Your task to perform on an android device: turn off smart reply in the gmail app Image 0: 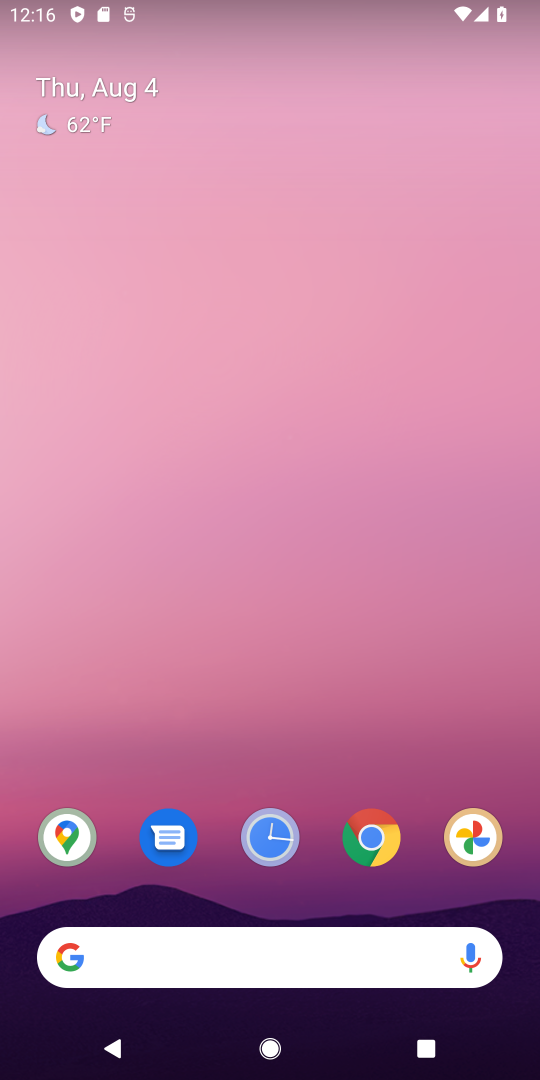
Step 0: drag from (235, 776) to (341, 16)
Your task to perform on an android device: turn off smart reply in the gmail app Image 1: 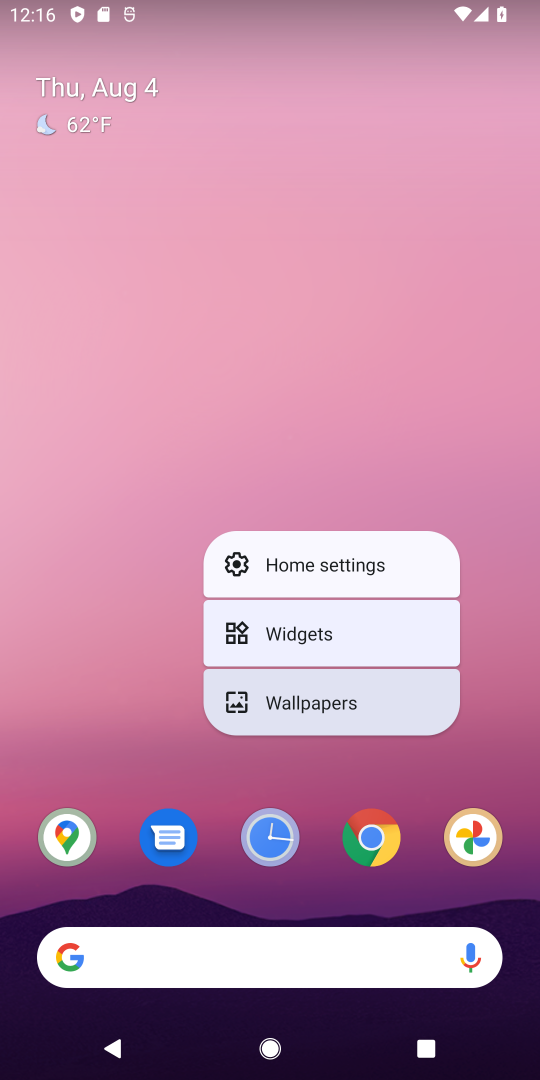
Step 1: click (319, 327)
Your task to perform on an android device: turn off smart reply in the gmail app Image 2: 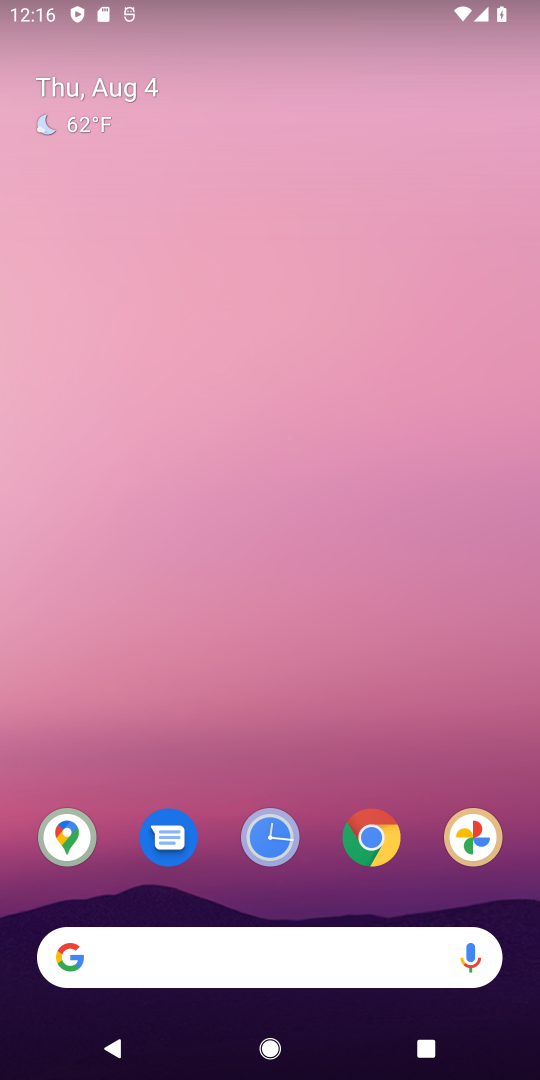
Step 2: drag from (299, 761) to (257, 339)
Your task to perform on an android device: turn off smart reply in the gmail app Image 3: 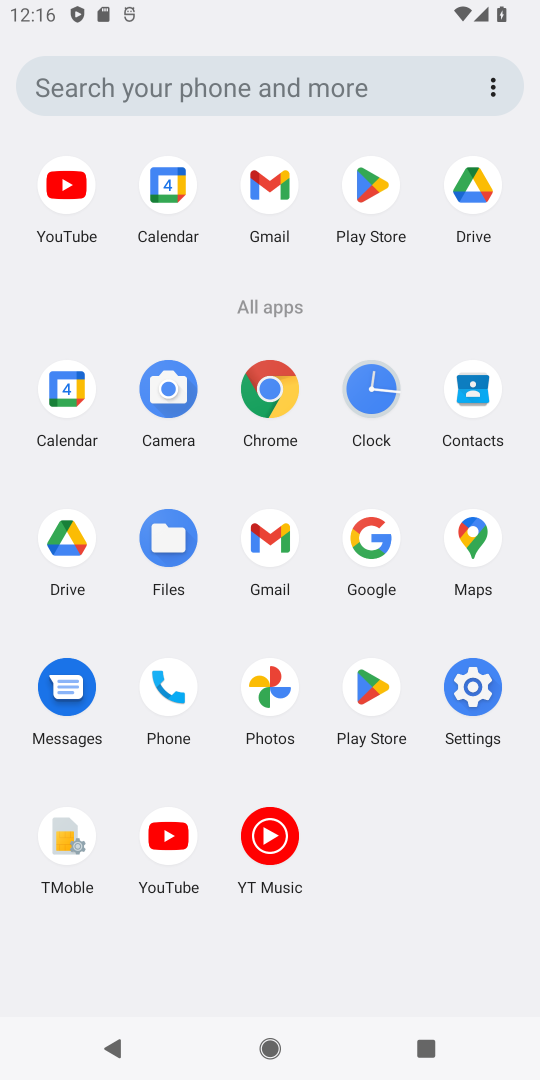
Step 3: click (271, 198)
Your task to perform on an android device: turn off smart reply in the gmail app Image 4: 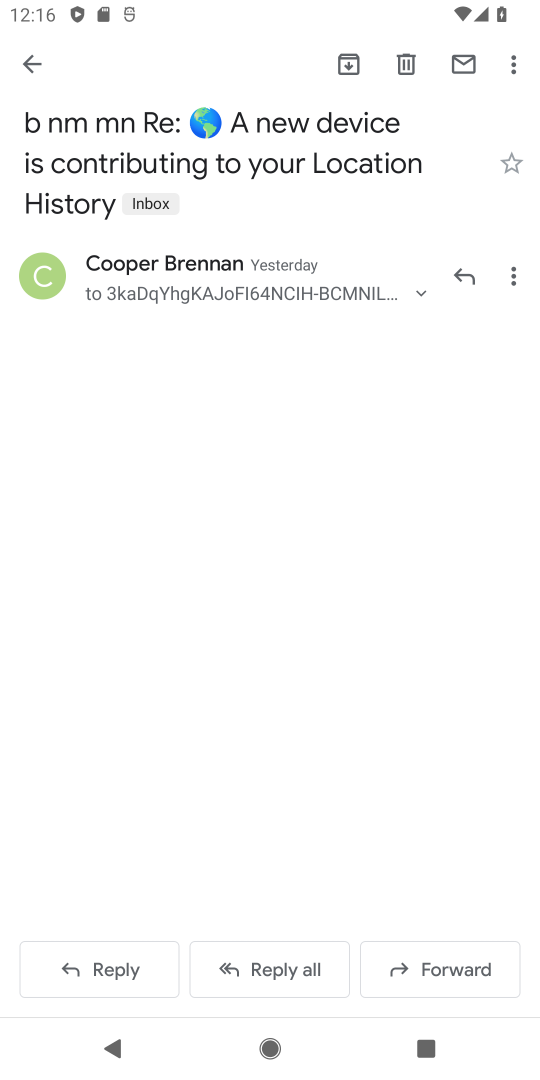
Step 4: click (54, 57)
Your task to perform on an android device: turn off smart reply in the gmail app Image 5: 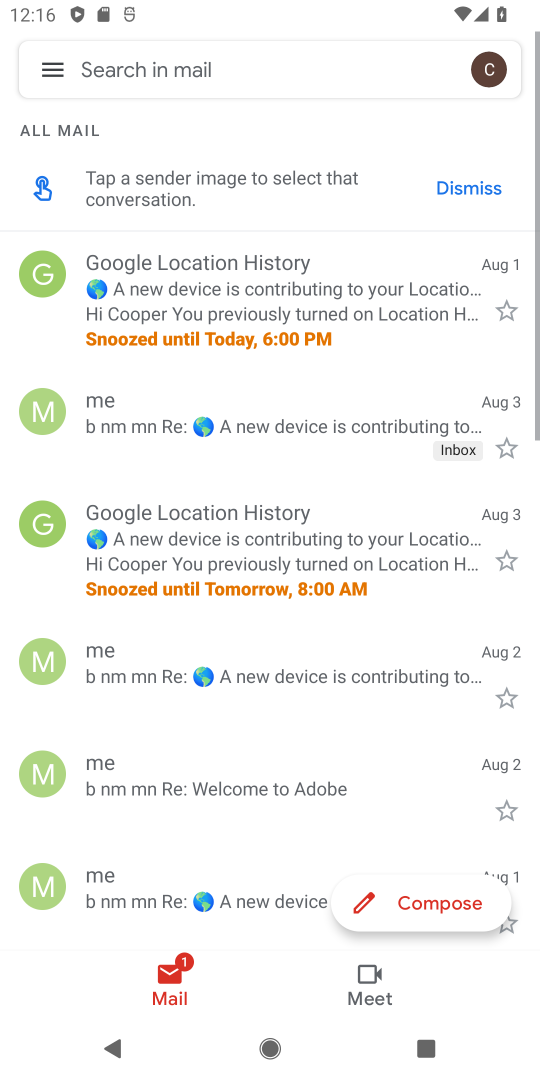
Step 5: click (67, 73)
Your task to perform on an android device: turn off smart reply in the gmail app Image 6: 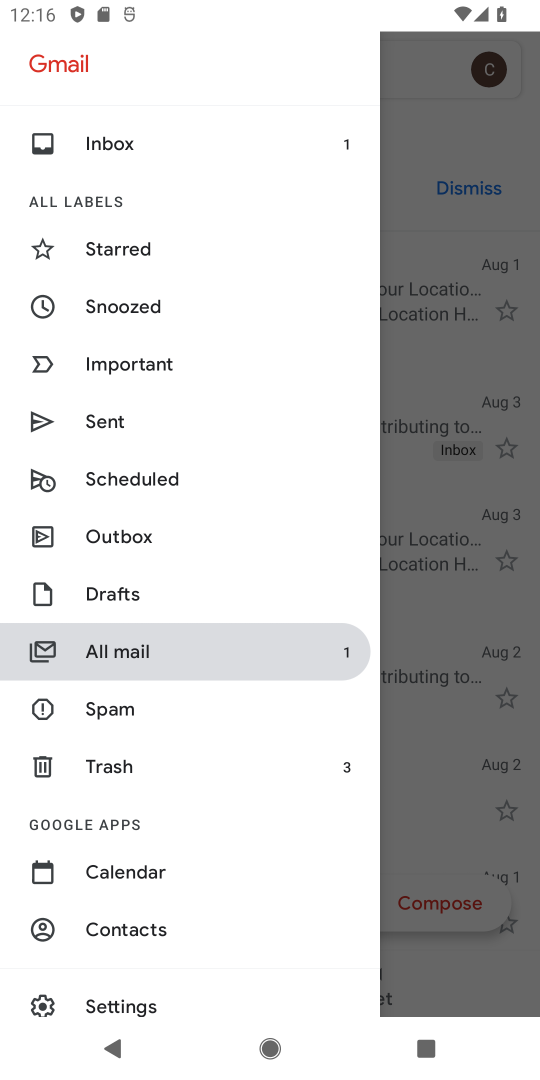
Step 6: click (181, 1003)
Your task to perform on an android device: turn off smart reply in the gmail app Image 7: 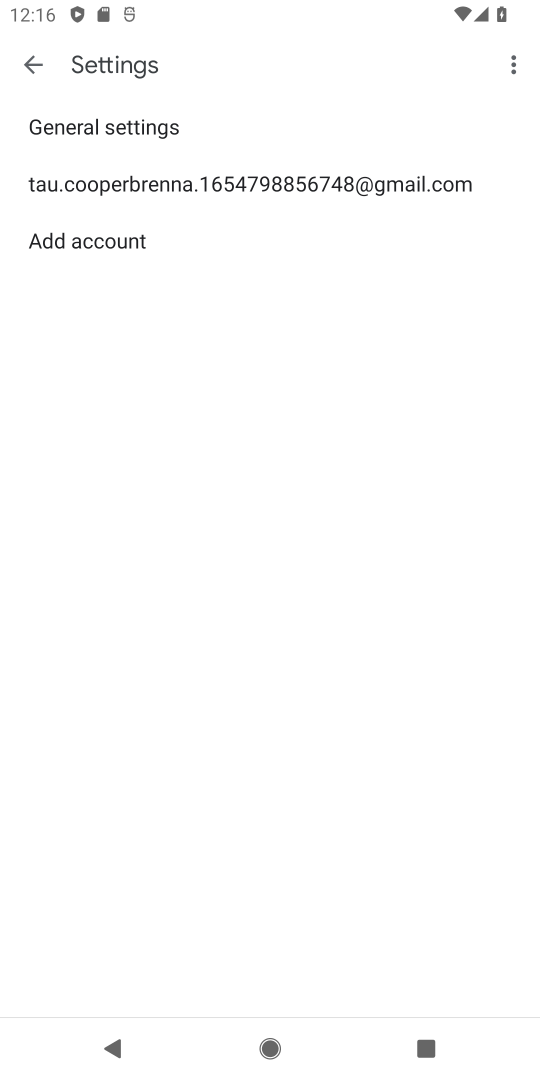
Step 7: click (334, 171)
Your task to perform on an android device: turn off smart reply in the gmail app Image 8: 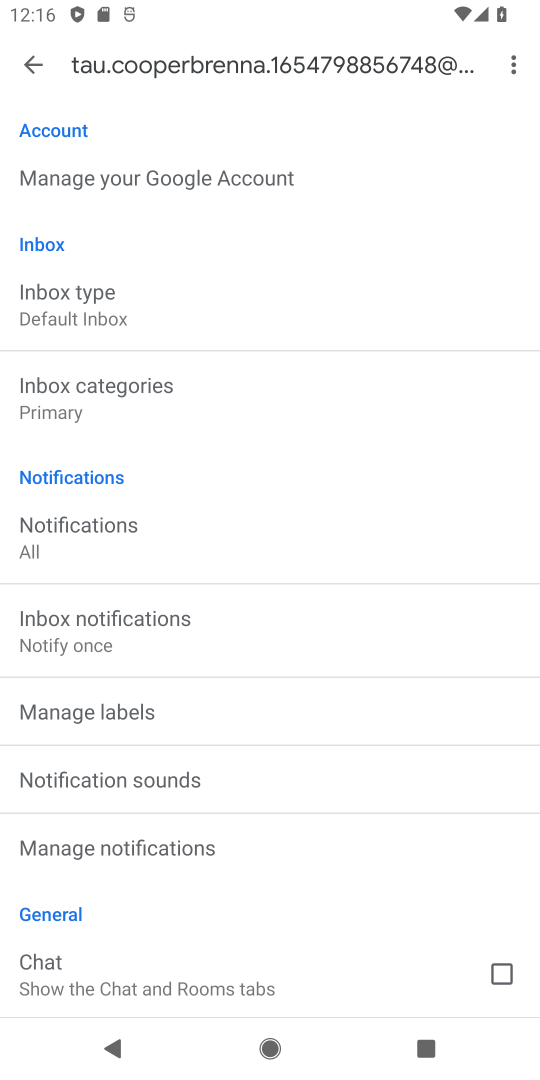
Step 8: drag from (191, 909) to (257, 139)
Your task to perform on an android device: turn off smart reply in the gmail app Image 9: 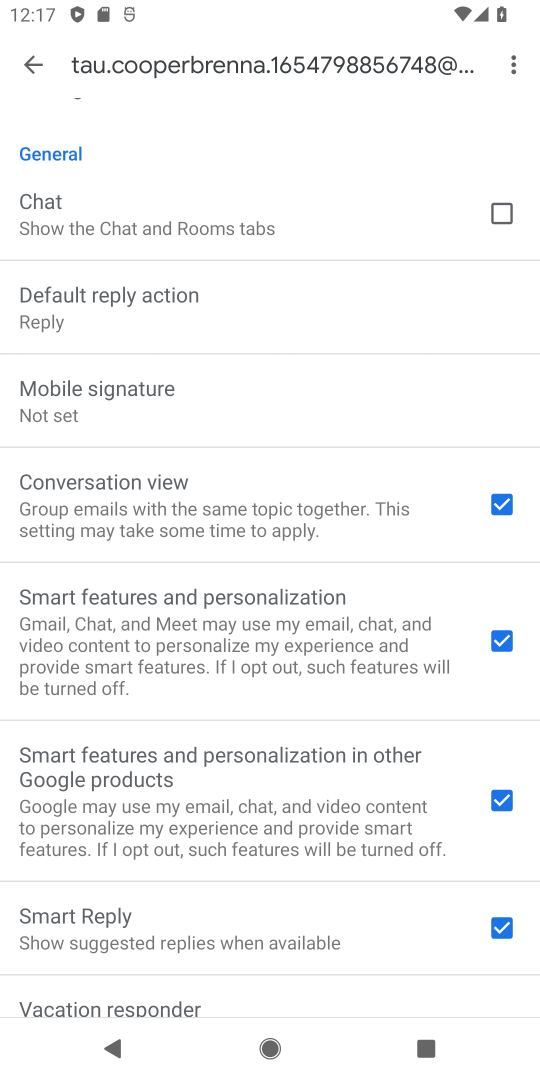
Step 9: click (497, 913)
Your task to perform on an android device: turn off smart reply in the gmail app Image 10: 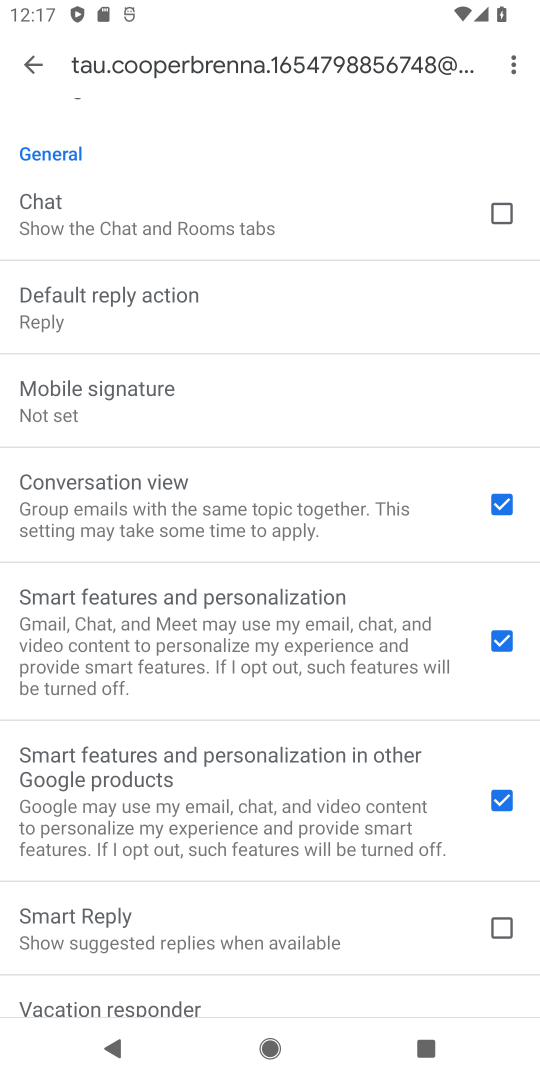
Step 10: task complete